Your task to perform on an android device: open sync settings in chrome Image 0: 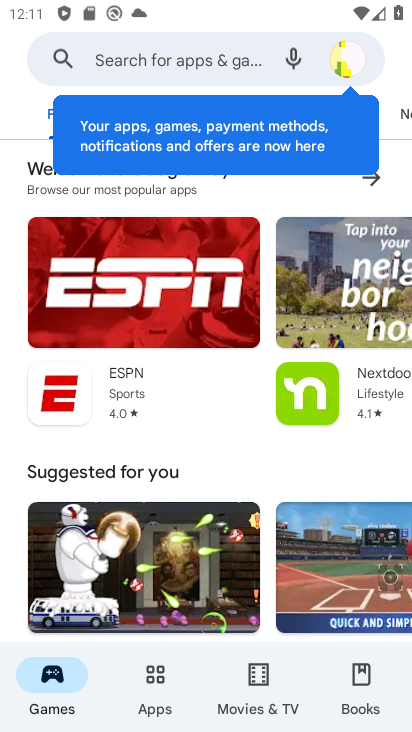
Step 0: press home button
Your task to perform on an android device: open sync settings in chrome Image 1: 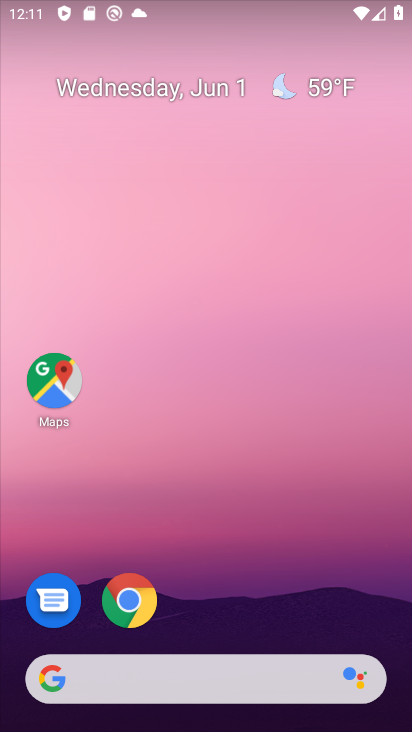
Step 1: click (249, 621)
Your task to perform on an android device: open sync settings in chrome Image 2: 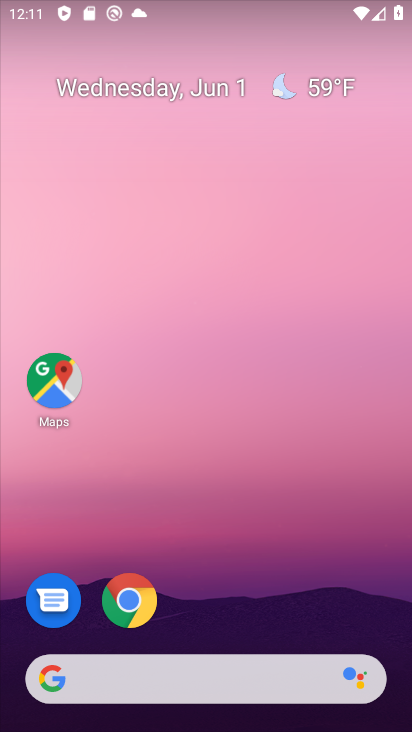
Step 2: click (136, 603)
Your task to perform on an android device: open sync settings in chrome Image 3: 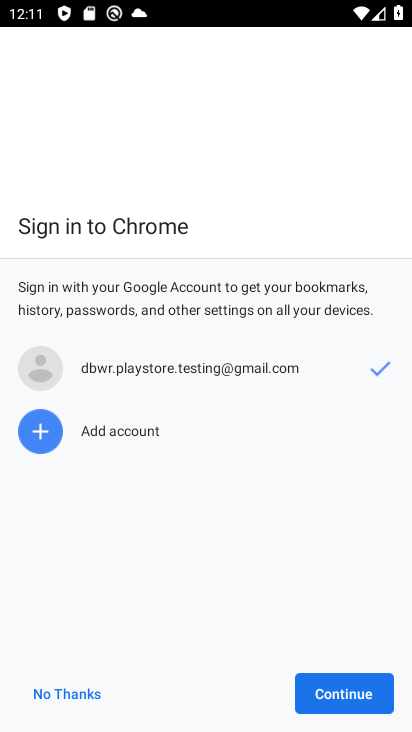
Step 3: click (376, 690)
Your task to perform on an android device: open sync settings in chrome Image 4: 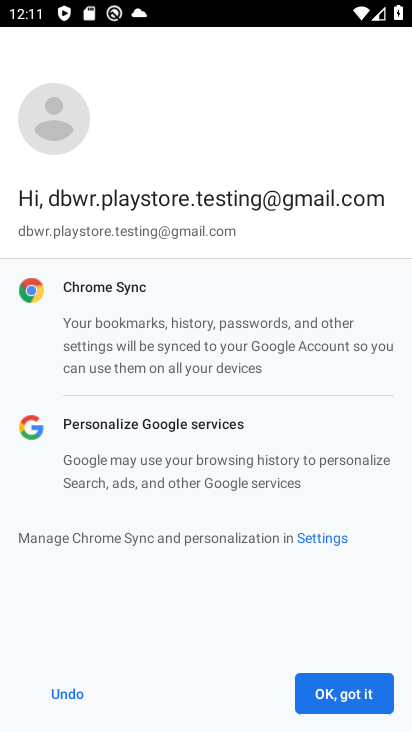
Step 4: click (376, 690)
Your task to perform on an android device: open sync settings in chrome Image 5: 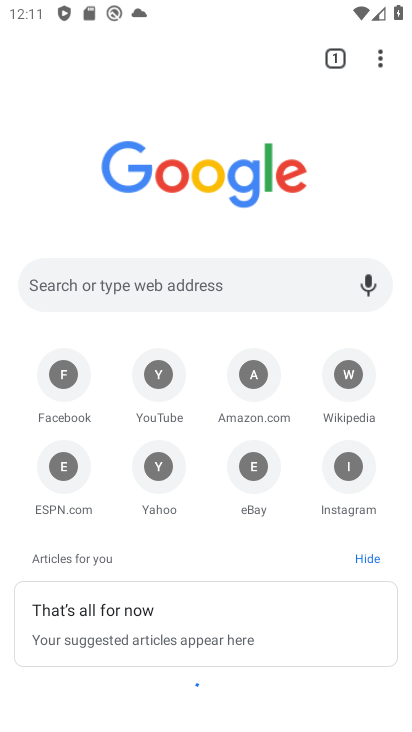
Step 5: click (384, 56)
Your task to perform on an android device: open sync settings in chrome Image 6: 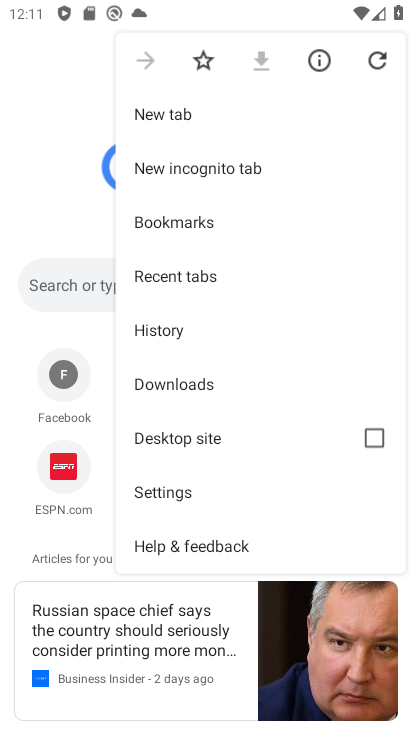
Step 6: click (177, 498)
Your task to perform on an android device: open sync settings in chrome Image 7: 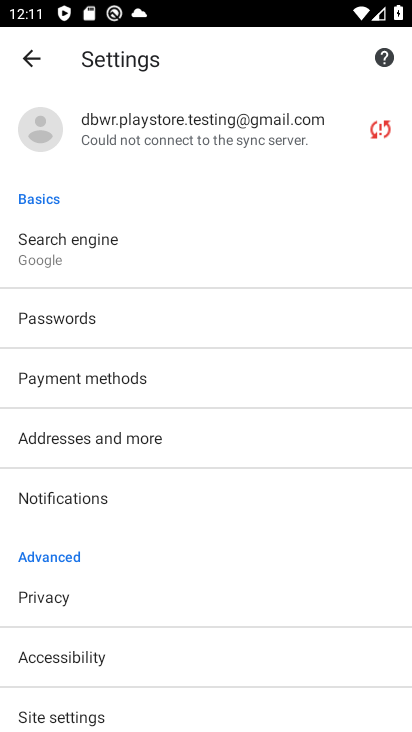
Step 7: click (147, 124)
Your task to perform on an android device: open sync settings in chrome Image 8: 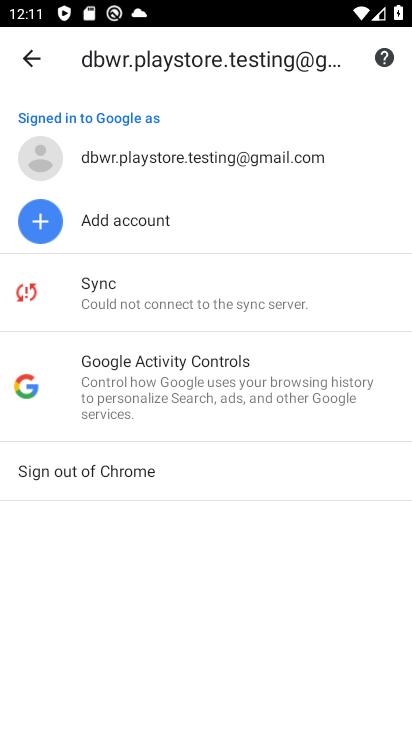
Step 8: click (92, 277)
Your task to perform on an android device: open sync settings in chrome Image 9: 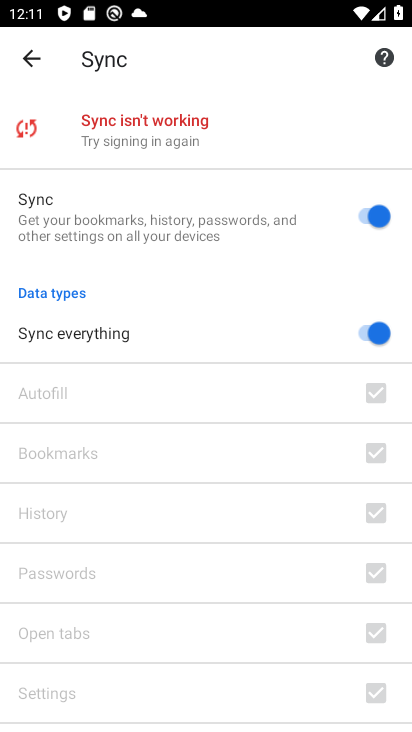
Step 9: task complete